Your task to perform on an android device: Go to location settings Image 0: 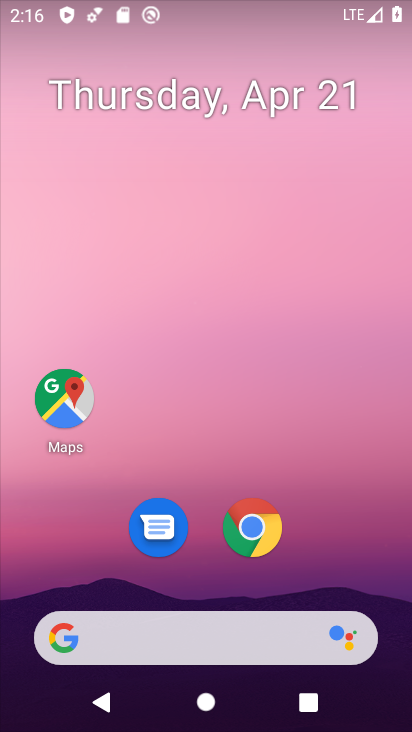
Step 0: drag from (219, 564) to (256, 59)
Your task to perform on an android device: Go to location settings Image 1: 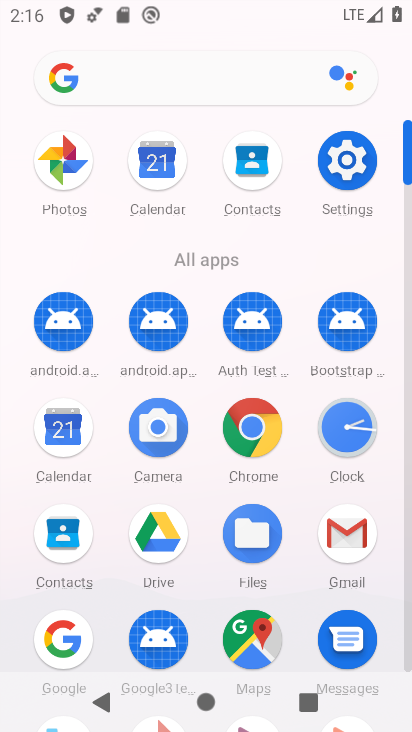
Step 1: click (344, 171)
Your task to perform on an android device: Go to location settings Image 2: 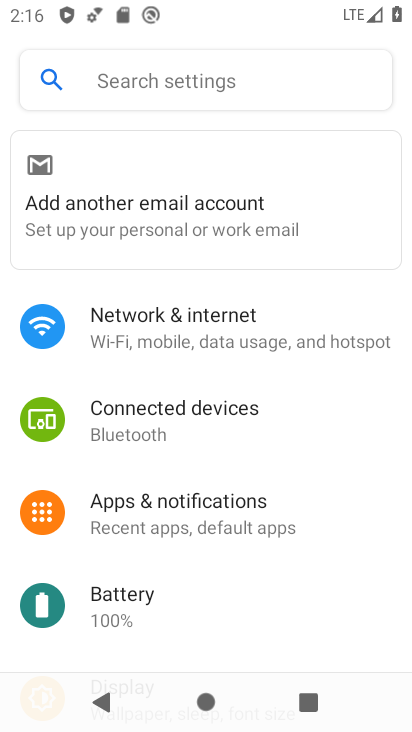
Step 2: drag from (203, 607) to (255, 185)
Your task to perform on an android device: Go to location settings Image 3: 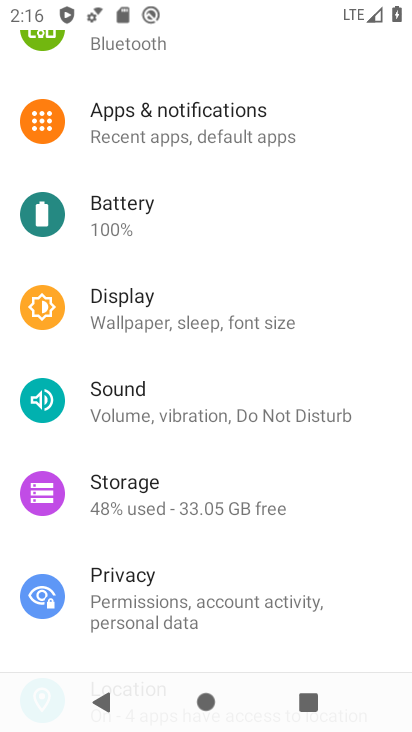
Step 3: drag from (241, 565) to (225, 150)
Your task to perform on an android device: Go to location settings Image 4: 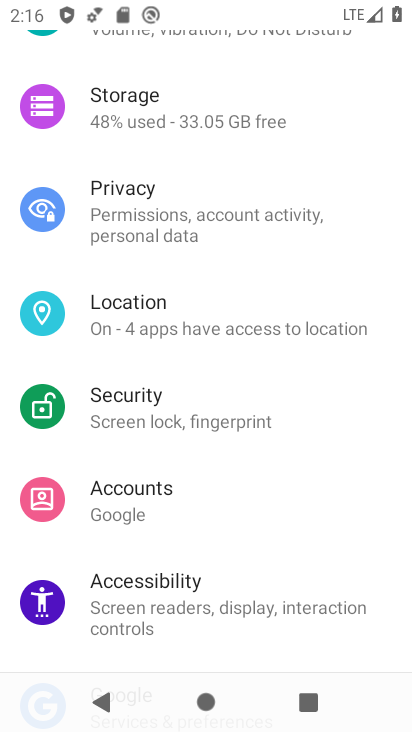
Step 4: click (133, 306)
Your task to perform on an android device: Go to location settings Image 5: 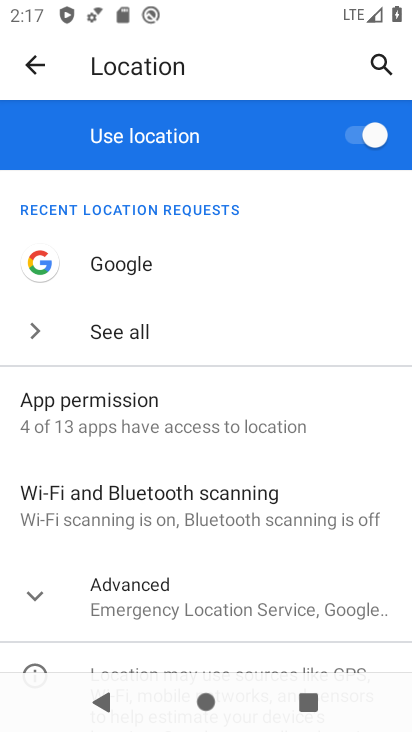
Step 5: task complete